Your task to perform on an android device: change the clock display to digital Image 0: 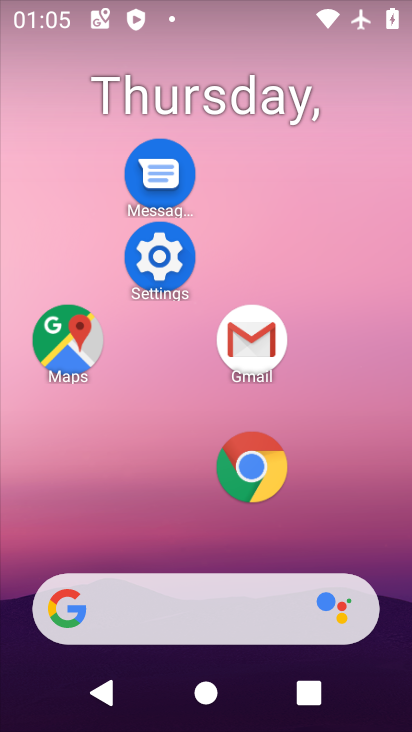
Step 0: click (210, 134)
Your task to perform on an android device: change the clock display to digital Image 1: 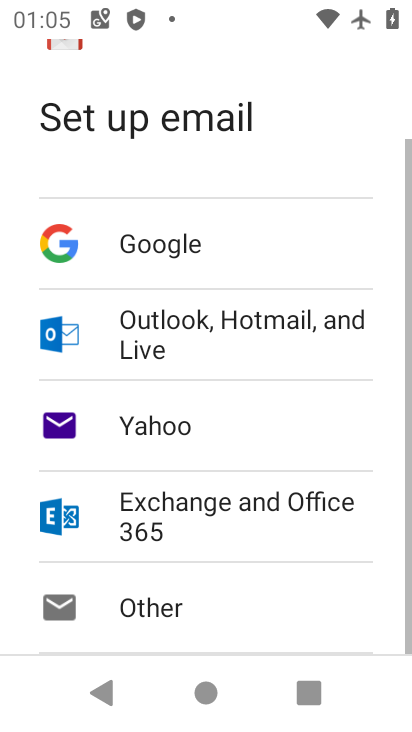
Step 1: press home button
Your task to perform on an android device: change the clock display to digital Image 2: 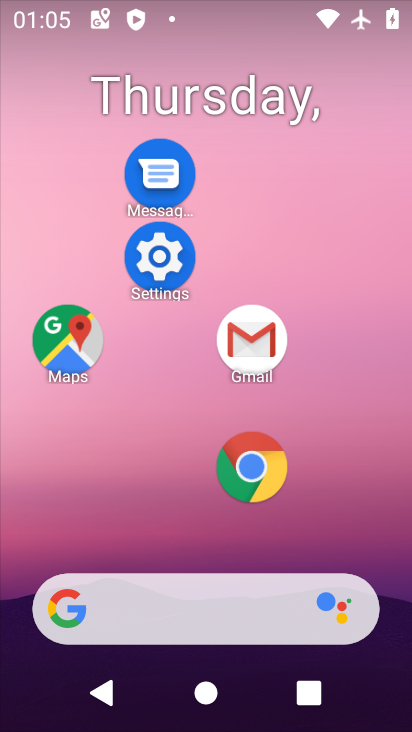
Step 2: drag from (210, 526) to (206, 128)
Your task to perform on an android device: change the clock display to digital Image 3: 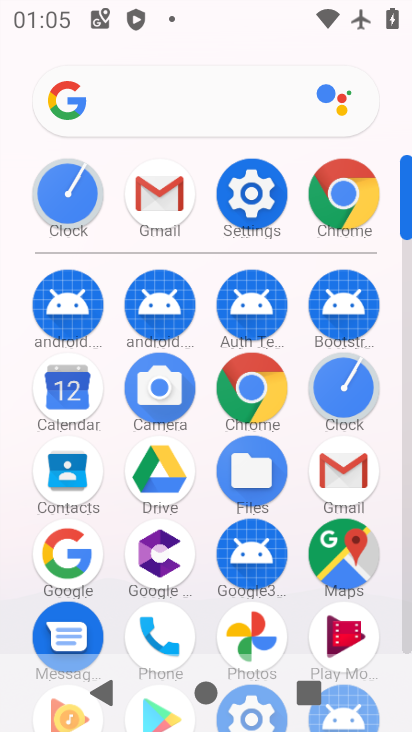
Step 3: click (346, 390)
Your task to perform on an android device: change the clock display to digital Image 4: 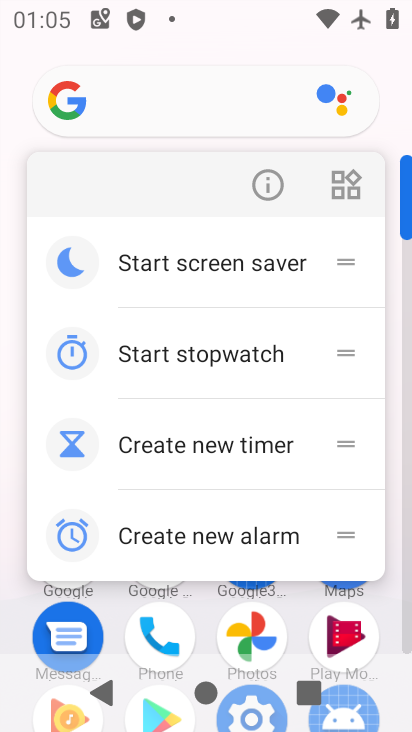
Step 4: click (260, 184)
Your task to perform on an android device: change the clock display to digital Image 5: 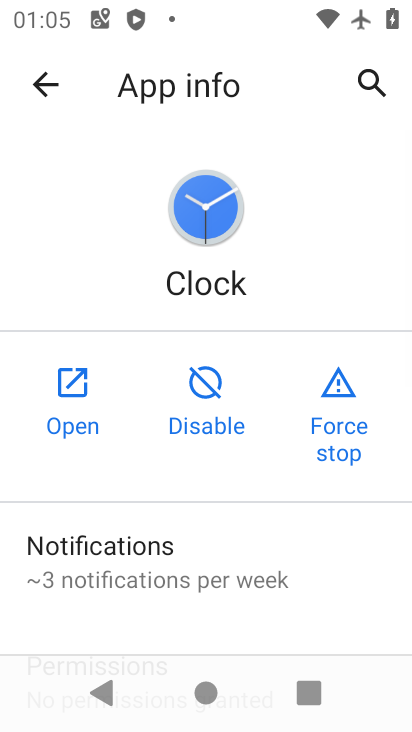
Step 5: click (71, 401)
Your task to perform on an android device: change the clock display to digital Image 6: 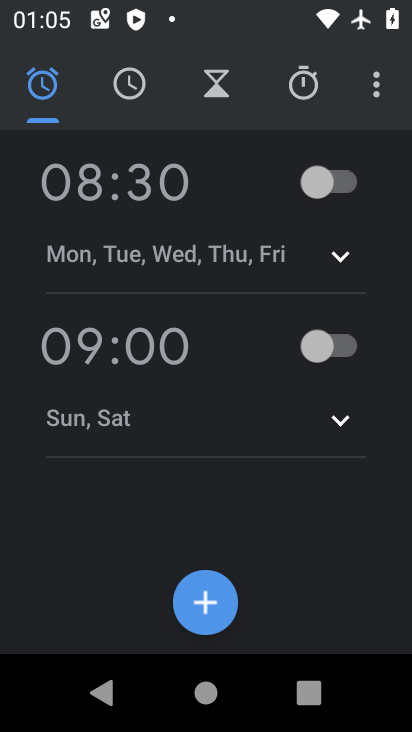
Step 6: click (376, 55)
Your task to perform on an android device: change the clock display to digital Image 7: 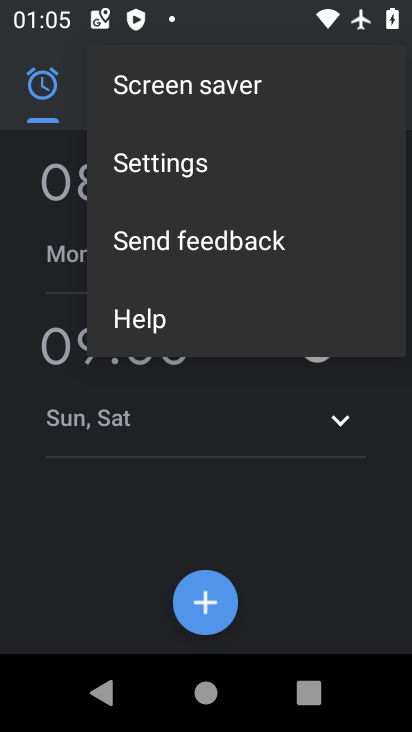
Step 7: click (158, 168)
Your task to perform on an android device: change the clock display to digital Image 8: 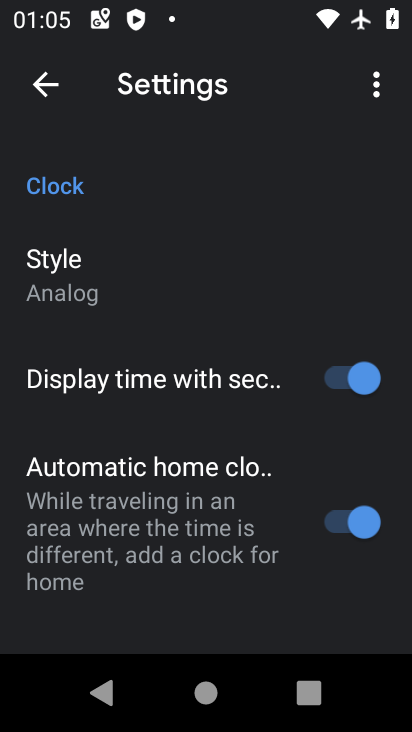
Step 8: click (127, 289)
Your task to perform on an android device: change the clock display to digital Image 9: 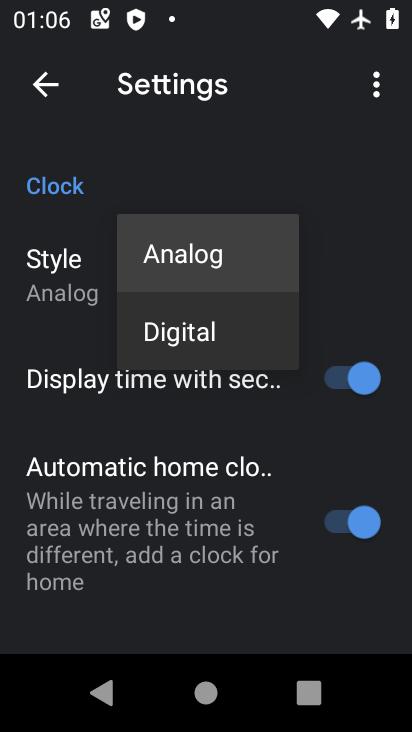
Step 9: click (210, 323)
Your task to perform on an android device: change the clock display to digital Image 10: 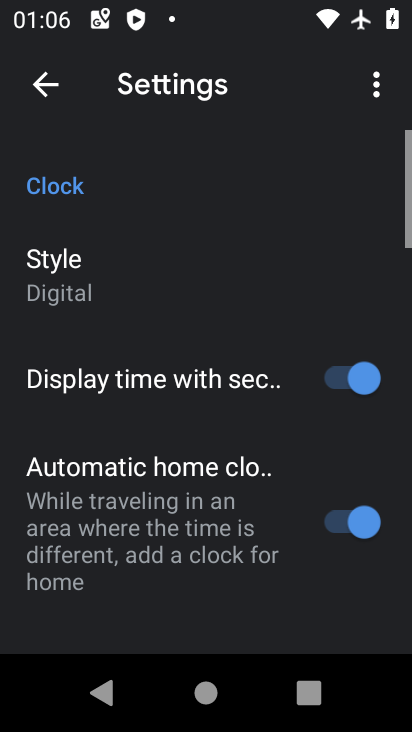
Step 10: task complete